Your task to perform on an android device: move an email to a new category in the gmail app Image 0: 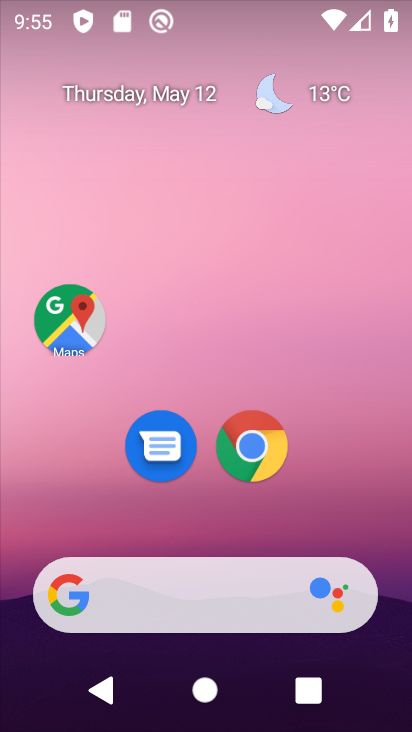
Step 0: drag from (206, 496) to (286, 62)
Your task to perform on an android device: move an email to a new category in the gmail app Image 1: 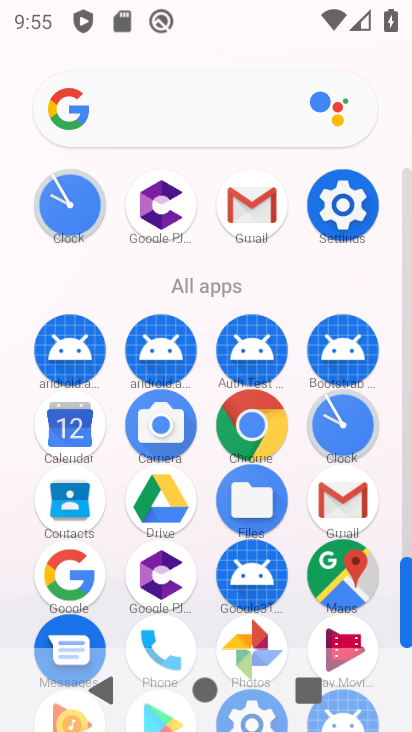
Step 1: click (249, 198)
Your task to perform on an android device: move an email to a new category in the gmail app Image 2: 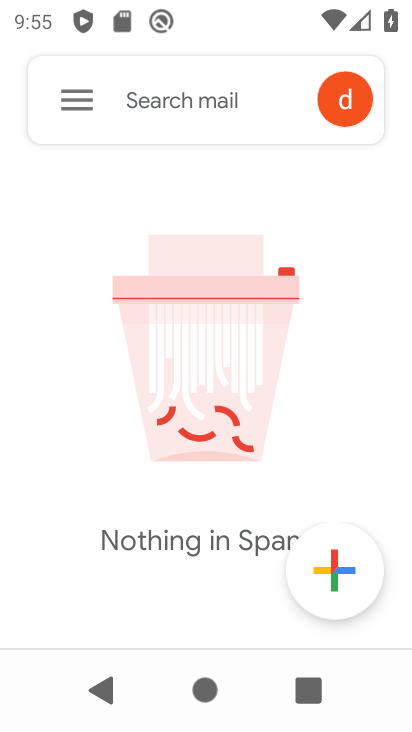
Step 2: task complete